Your task to perform on an android device: Open Chrome and go to the settings page Image 0: 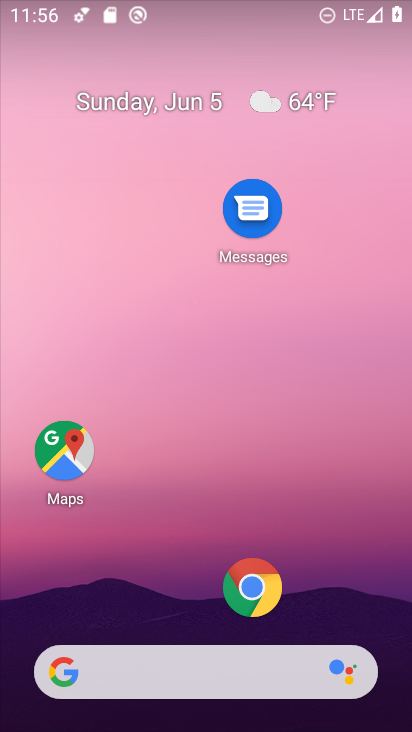
Step 0: click (247, 592)
Your task to perform on an android device: Open Chrome and go to the settings page Image 1: 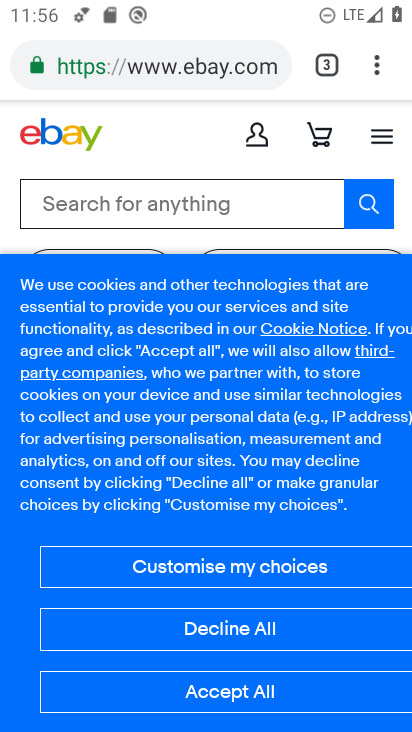
Step 1: click (381, 64)
Your task to perform on an android device: Open Chrome and go to the settings page Image 2: 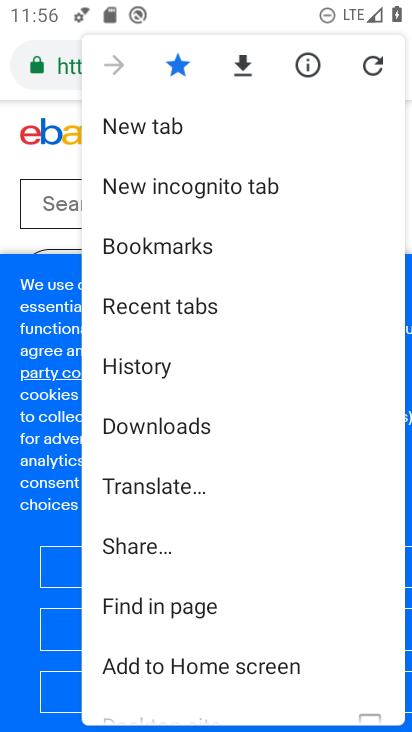
Step 2: drag from (134, 600) to (227, 155)
Your task to perform on an android device: Open Chrome and go to the settings page Image 3: 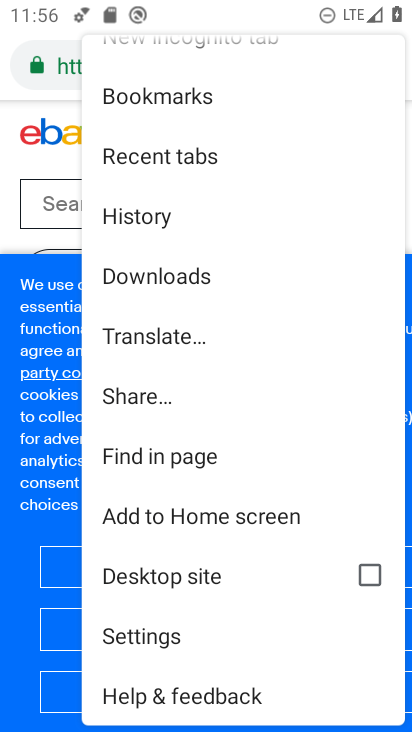
Step 3: click (143, 622)
Your task to perform on an android device: Open Chrome and go to the settings page Image 4: 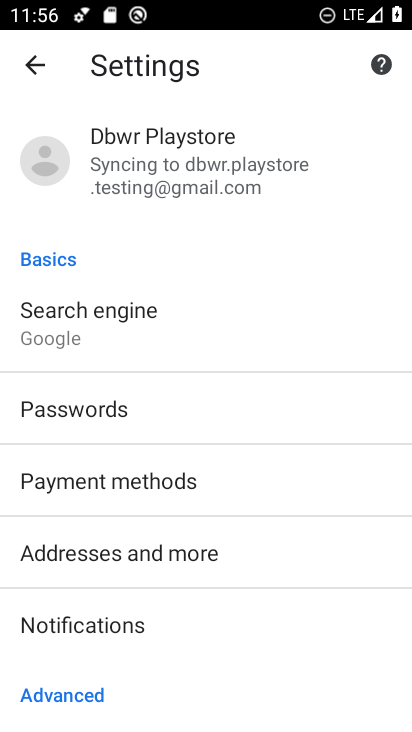
Step 4: task complete